Your task to perform on an android device: open chrome privacy settings Image 0: 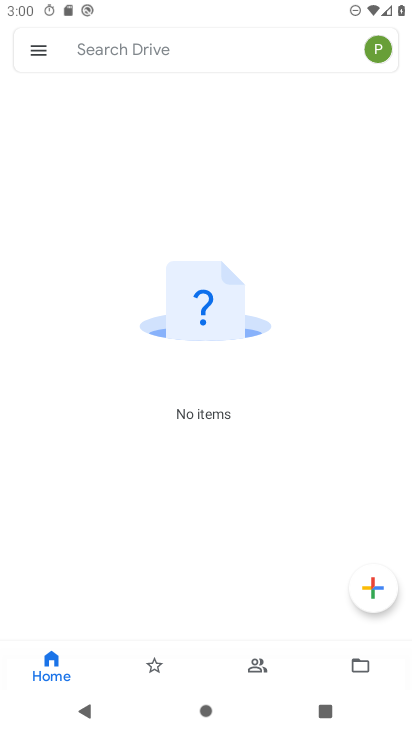
Step 0: press home button
Your task to perform on an android device: open chrome privacy settings Image 1: 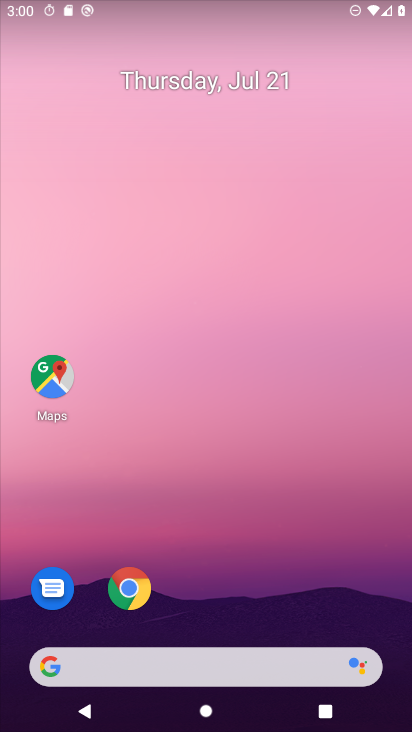
Step 1: drag from (256, 661) to (345, 64)
Your task to perform on an android device: open chrome privacy settings Image 2: 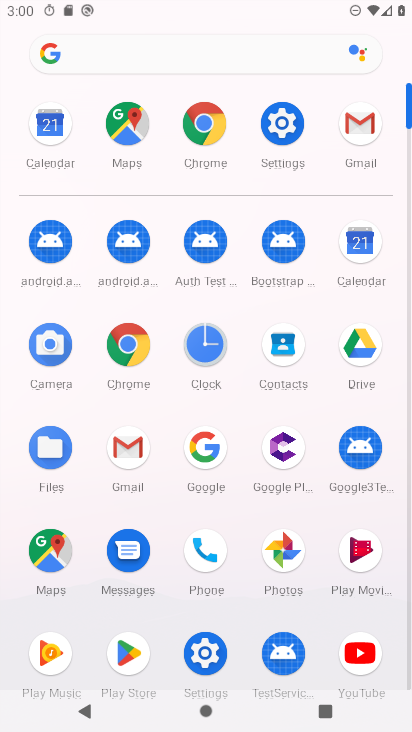
Step 2: click (297, 131)
Your task to perform on an android device: open chrome privacy settings Image 3: 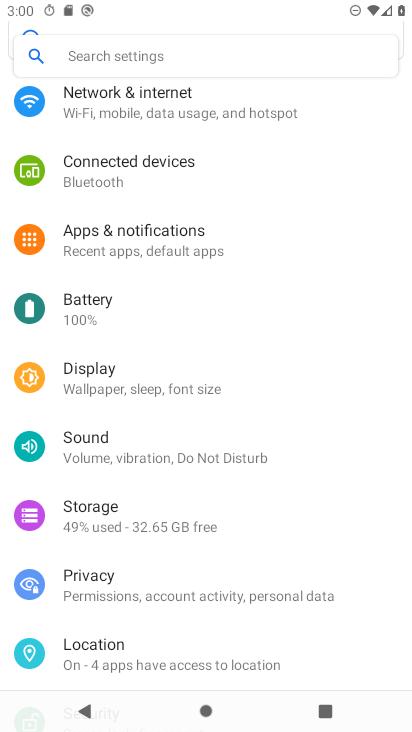
Step 3: drag from (217, 334) to (213, 567)
Your task to perform on an android device: open chrome privacy settings Image 4: 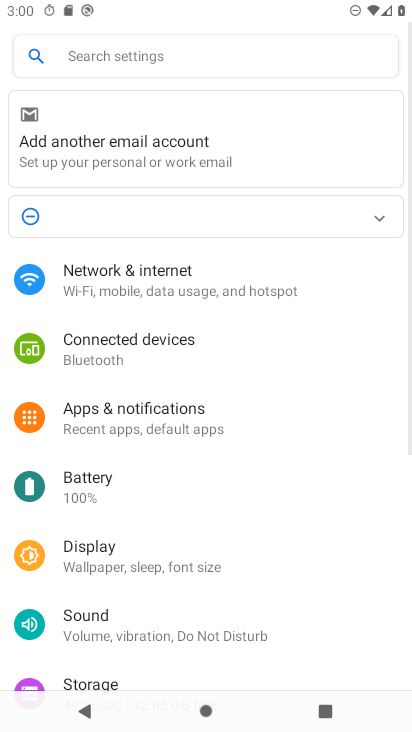
Step 4: drag from (207, 465) to (266, 134)
Your task to perform on an android device: open chrome privacy settings Image 5: 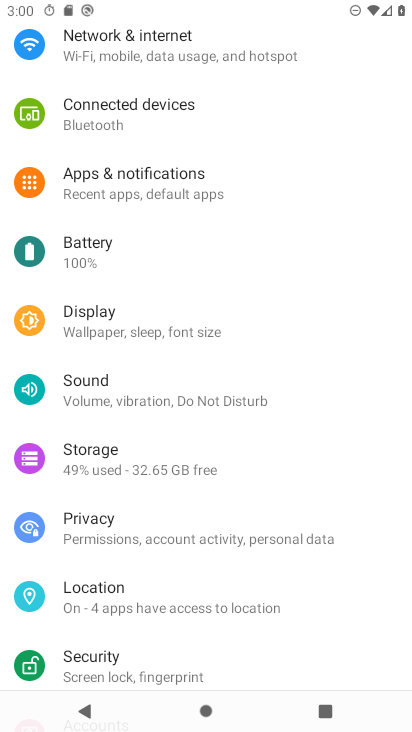
Step 5: click (172, 542)
Your task to perform on an android device: open chrome privacy settings Image 6: 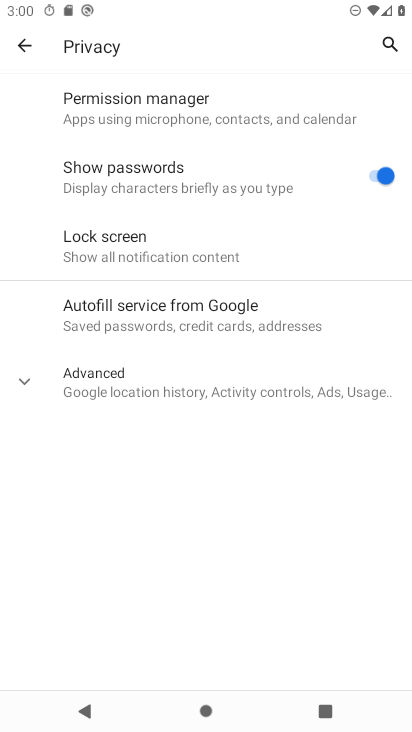
Step 6: click (207, 387)
Your task to perform on an android device: open chrome privacy settings Image 7: 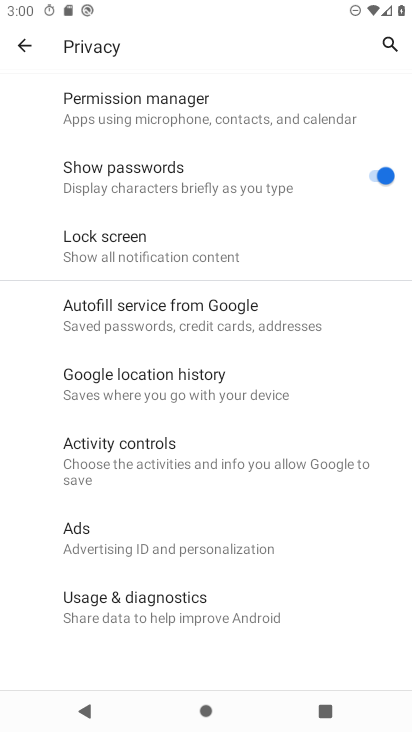
Step 7: task complete